Your task to perform on an android device: Open the web browser Image 0: 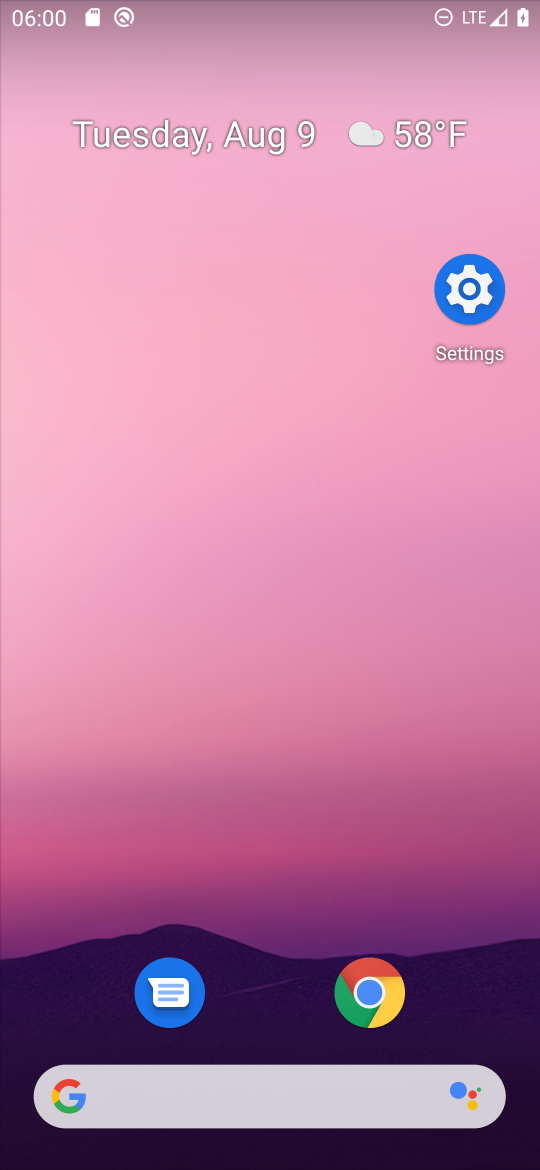
Step 0: drag from (277, 1083) to (396, 392)
Your task to perform on an android device: Open the web browser Image 1: 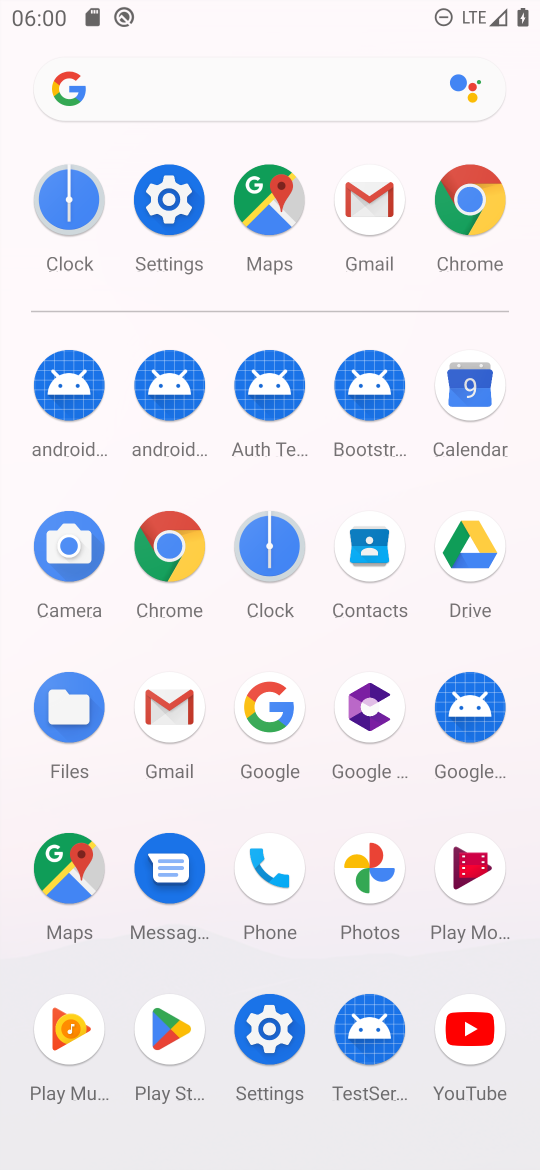
Step 1: click (159, 566)
Your task to perform on an android device: Open the web browser Image 2: 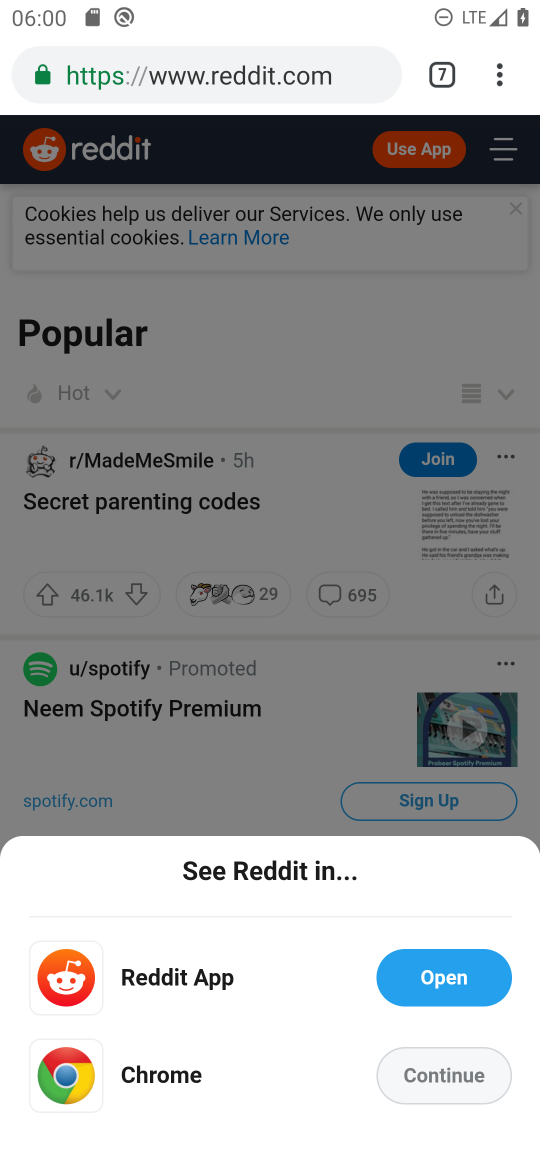
Step 2: task complete